Your task to perform on an android device: change the clock display to analog Image 0: 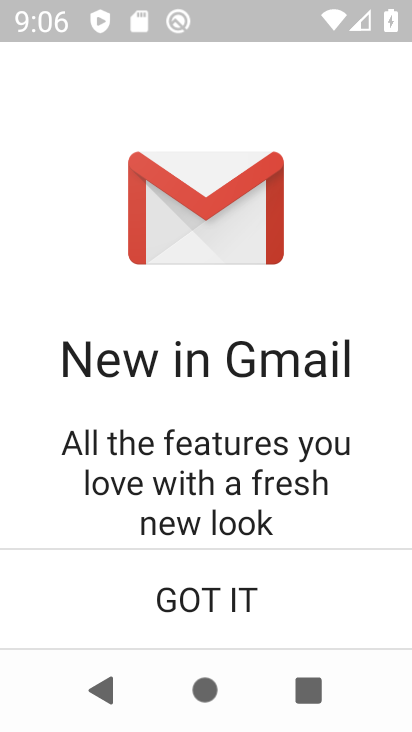
Step 0: press home button
Your task to perform on an android device: change the clock display to analog Image 1: 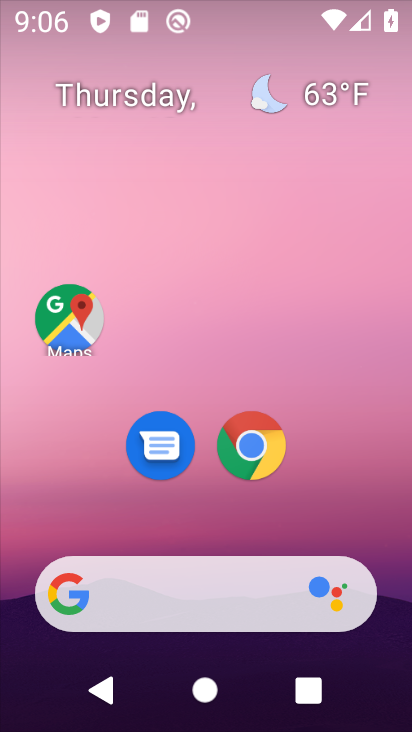
Step 1: drag from (228, 498) to (205, 77)
Your task to perform on an android device: change the clock display to analog Image 2: 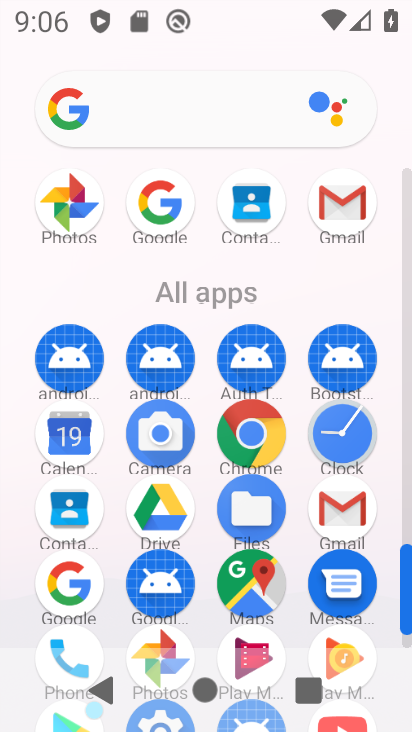
Step 2: click (354, 428)
Your task to perform on an android device: change the clock display to analog Image 3: 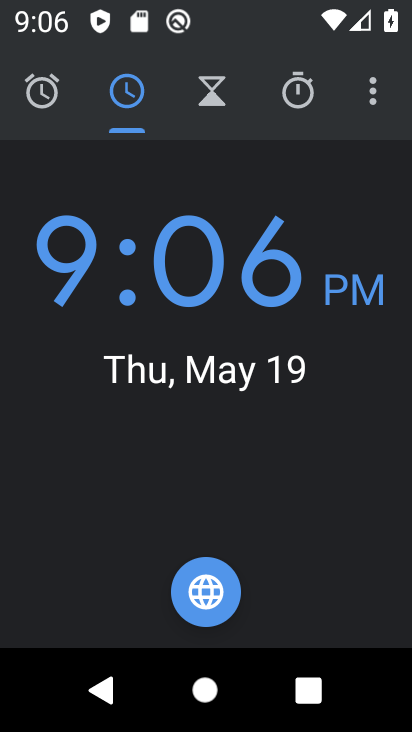
Step 3: click (374, 99)
Your task to perform on an android device: change the clock display to analog Image 4: 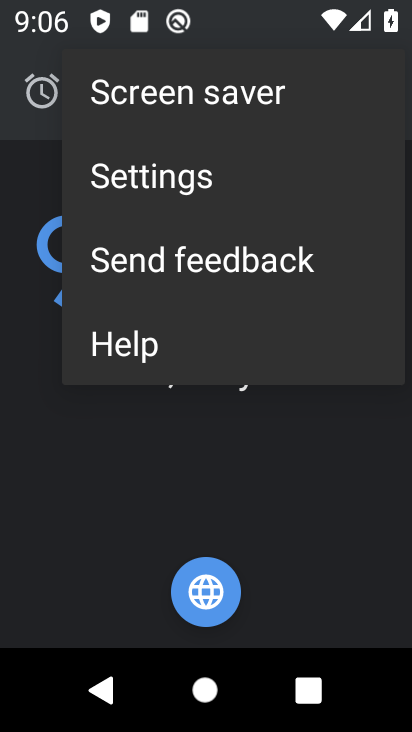
Step 4: click (162, 173)
Your task to perform on an android device: change the clock display to analog Image 5: 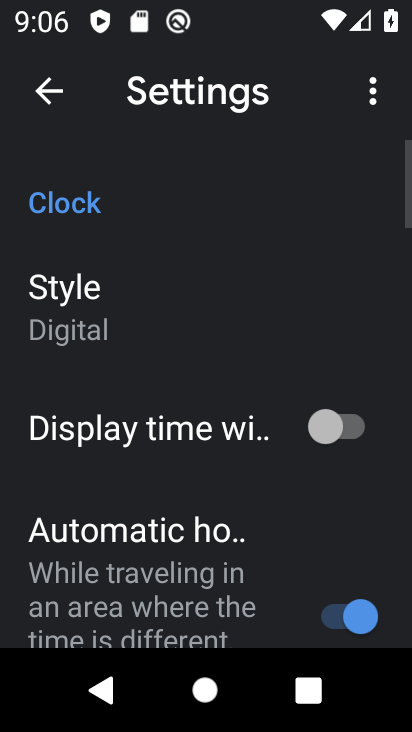
Step 5: click (94, 322)
Your task to perform on an android device: change the clock display to analog Image 6: 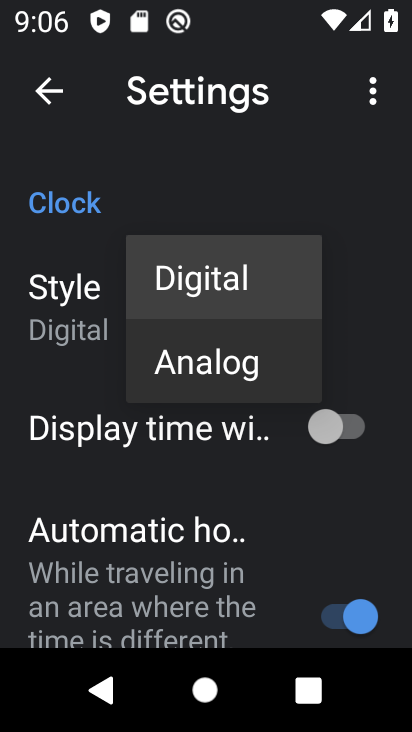
Step 6: click (198, 366)
Your task to perform on an android device: change the clock display to analog Image 7: 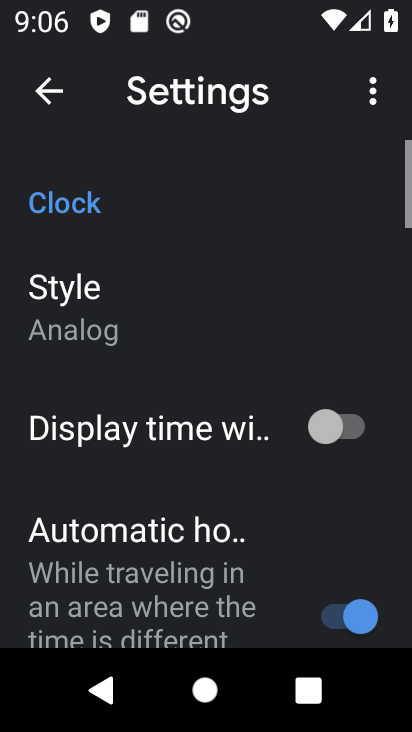
Step 7: task complete